Your task to perform on an android device: find which apps use the phone's location Image 0: 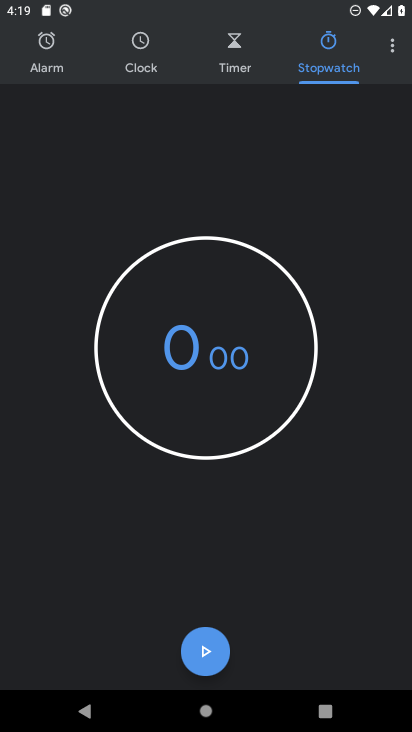
Step 0: press home button
Your task to perform on an android device: find which apps use the phone's location Image 1: 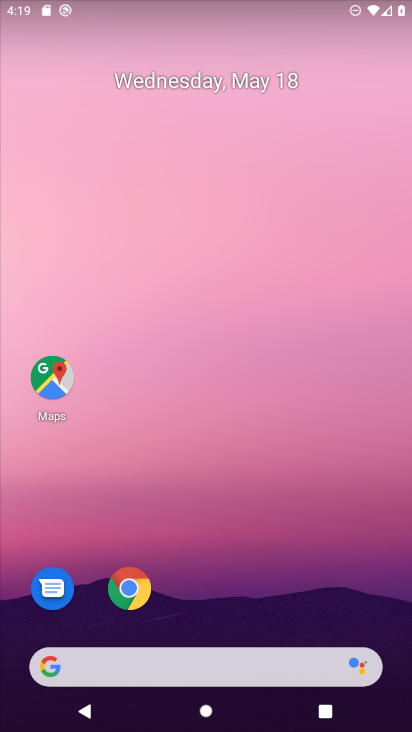
Step 1: drag from (235, 607) to (246, 219)
Your task to perform on an android device: find which apps use the phone's location Image 2: 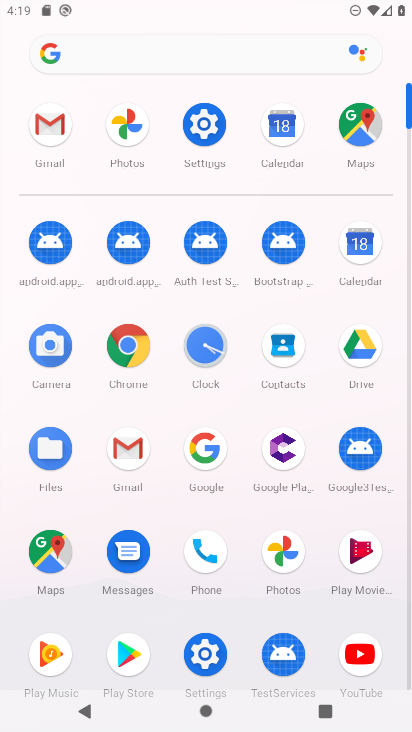
Step 2: click (218, 166)
Your task to perform on an android device: find which apps use the phone's location Image 3: 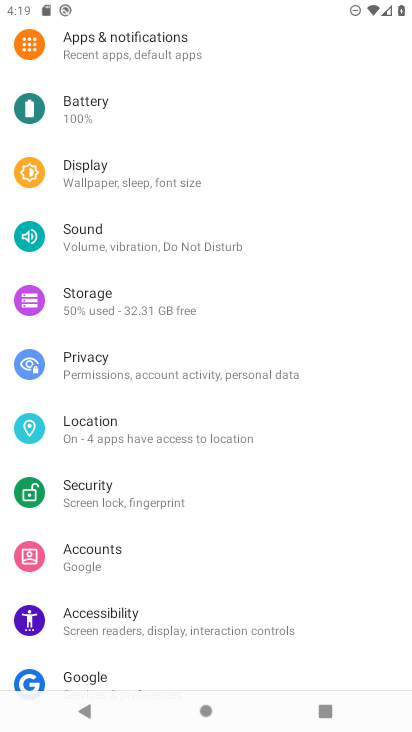
Step 3: click (160, 430)
Your task to perform on an android device: find which apps use the phone's location Image 4: 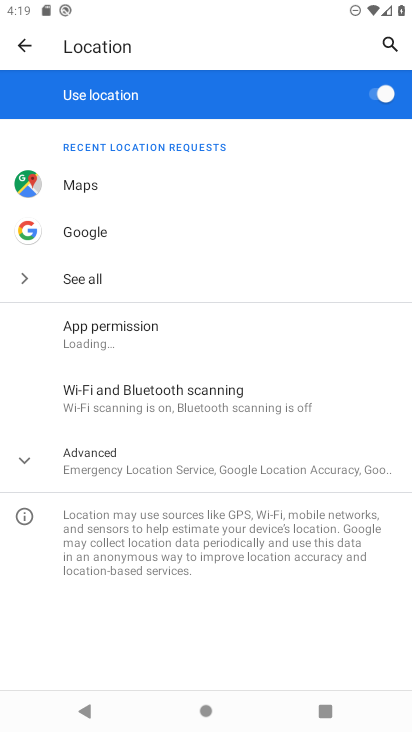
Step 4: click (174, 300)
Your task to perform on an android device: find which apps use the phone's location Image 5: 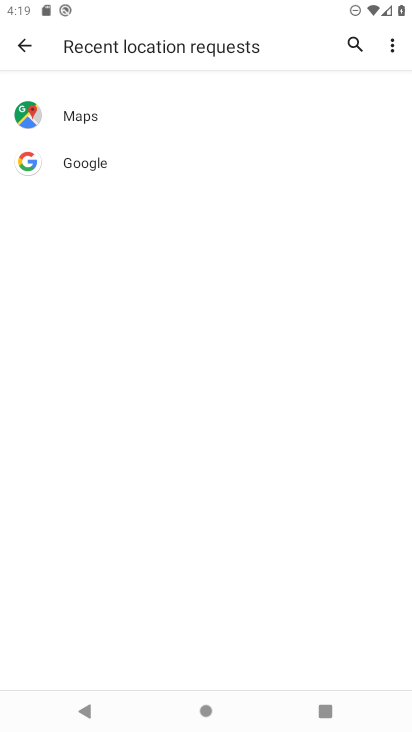
Step 5: task complete